Your task to perform on an android device: Go to notification settings Image 0: 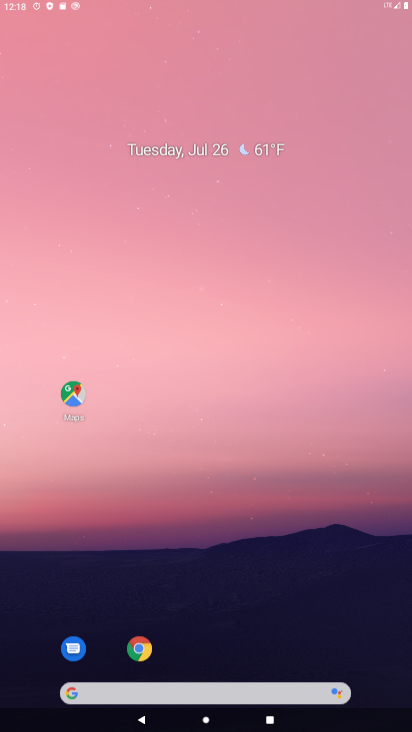
Step 0: drag from (194, 680) to (160, 152)
Your task to perform on an android device: Go to notification settings Image 1: 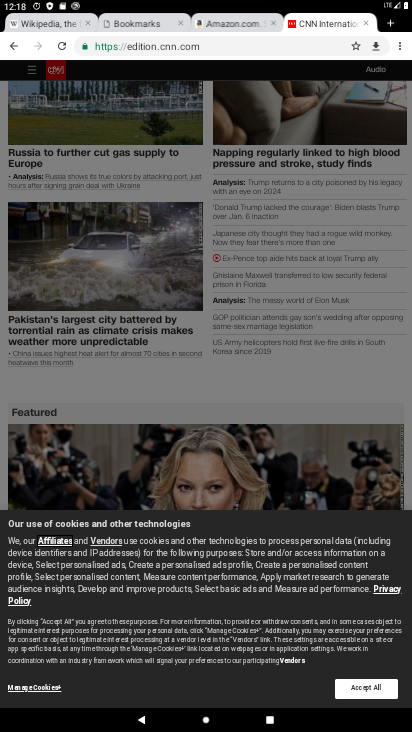
Step 1: press home button
Your task to perform on an android device: Go to notification settings Image 2: 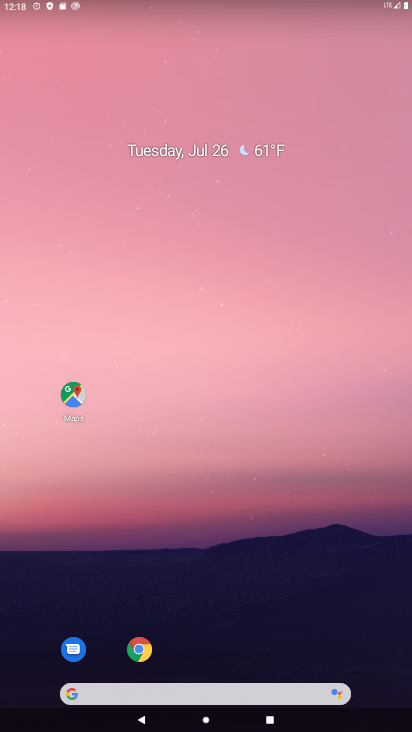
Step 2: drag from (190, 696) to (121, 10)
Your task to perform on an android device: Go to notification settings Image 3: 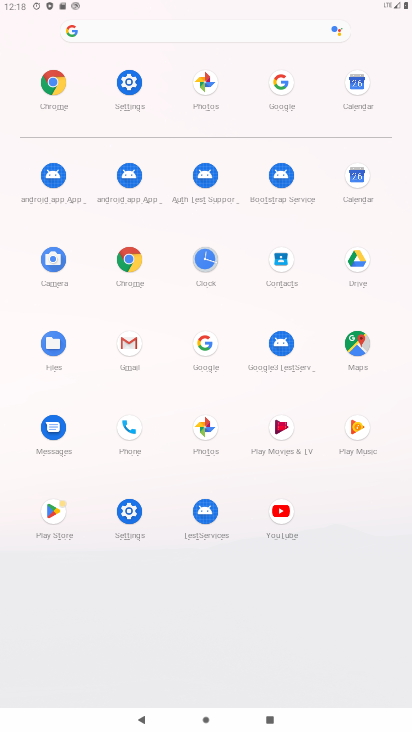
Step 3: click (132, 507)
Your task to perform on an android device: Go to notification settings Image 4: 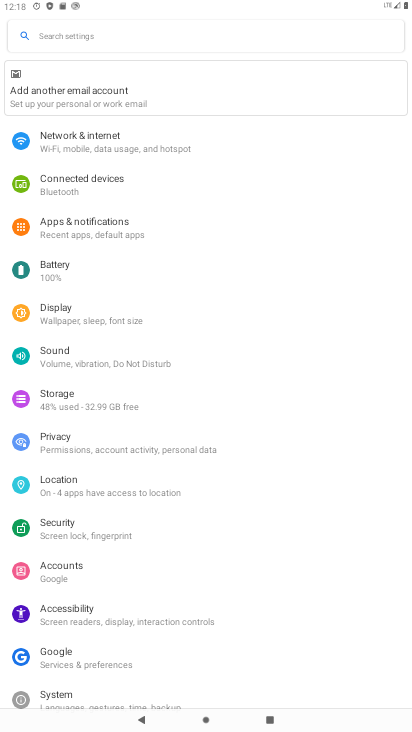
Step 4: click (108, 224)
Your task to perform on an android device: Go to notification settings Image 5: 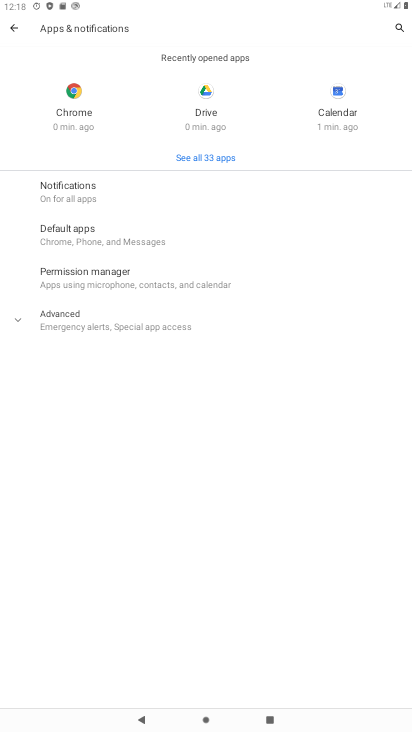
Step 5: click (66, 183)
Your task to perform on an android device: Go to notification settings Image 6: 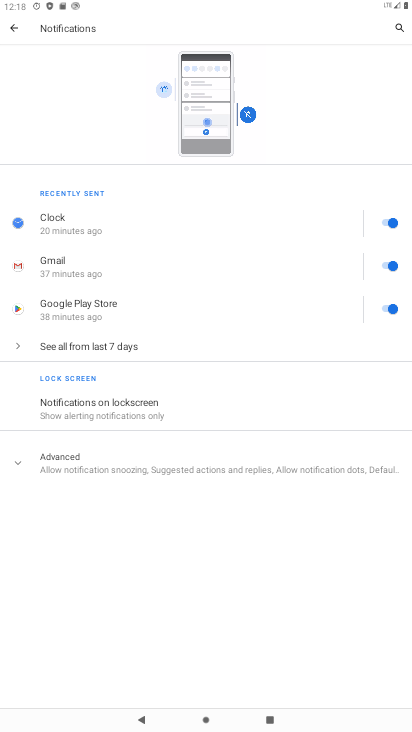
Step 6: task complete